Your task to perform on an android device: change the clock style Image 0: 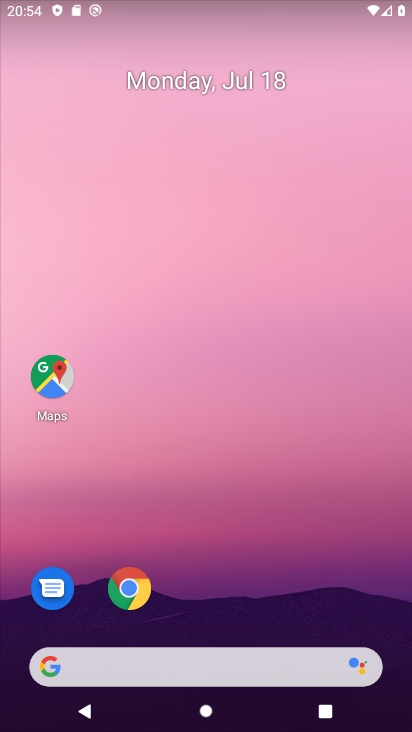
Step 0: press home button
Your task to perform on an android device: change the clock style Image 1: 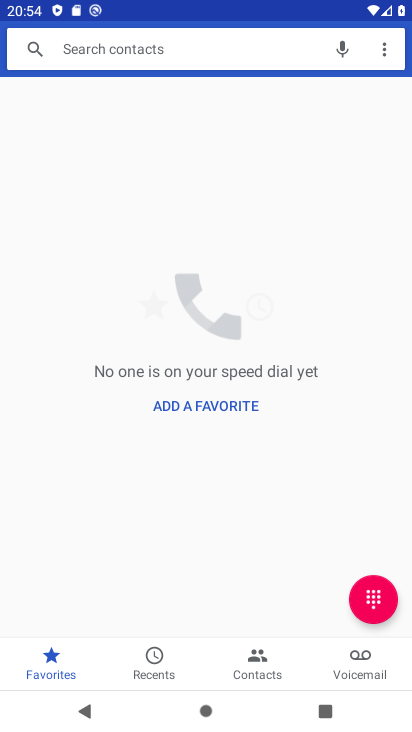
Step 1: drag from (248, 516) to (392, 77)
Your task to perform on an android device: change the clock style Image 2: 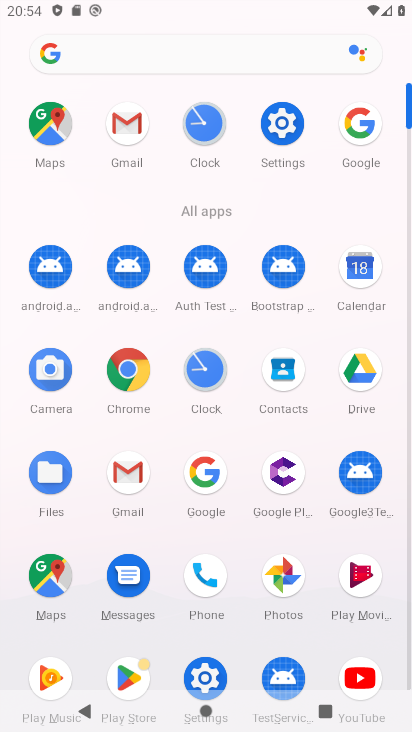
Step 2: click (207, 369)
Your task to perform on an android device: change the clock style Image 3: 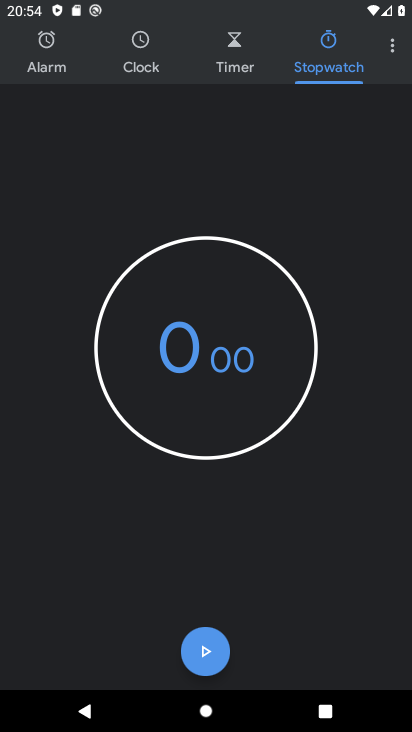
Step 3: click (391, 45)
Your task to perform on an android device: change the clock style Image 4: 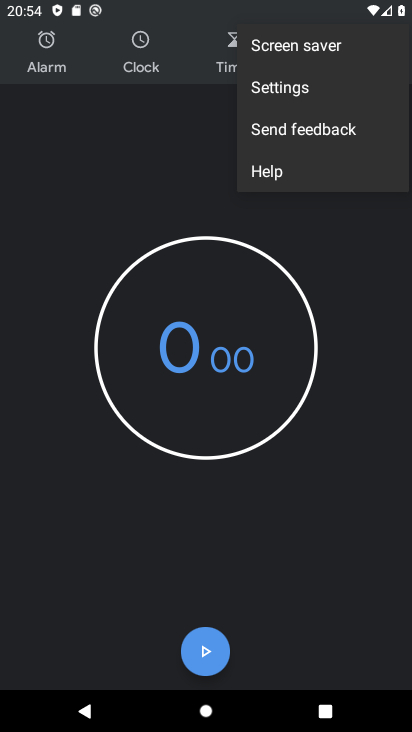
Step 4: click (307, 85)
Your task to perform on an android device: change the clock style Image 5: 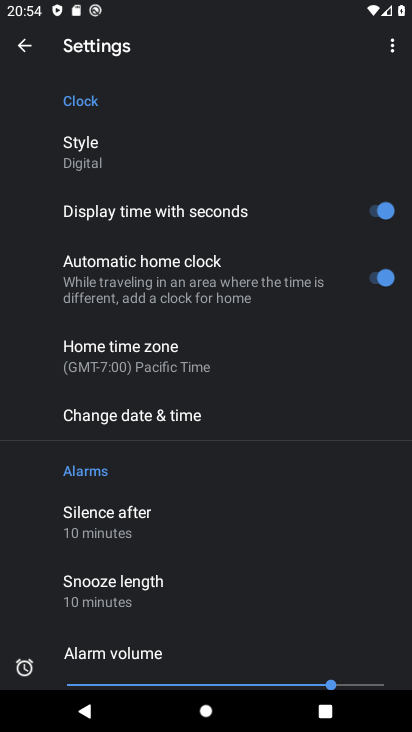
Step 5: click (91, 159)
Your task to perform on an android device: change the clock style Image 6: 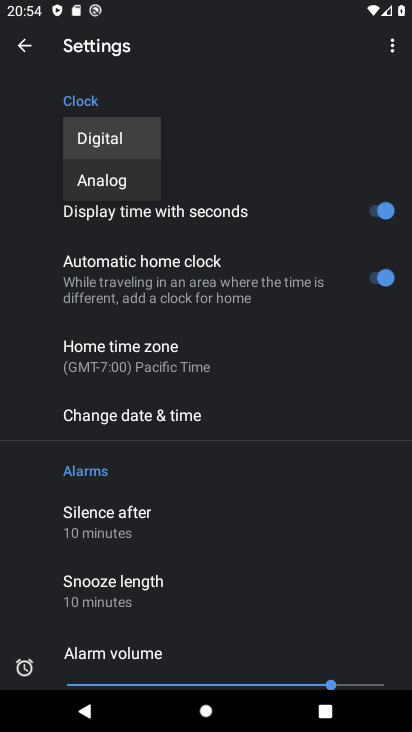
Step 6: click (128, 185)
Your task to perform on an android device: change the clock style Image 7: 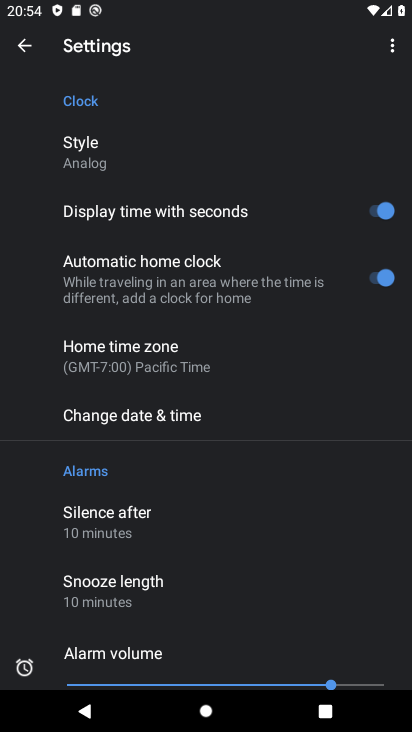
Step 7: task complete